Your task to perform on an android device: Go to Yahoo.com Image 0: 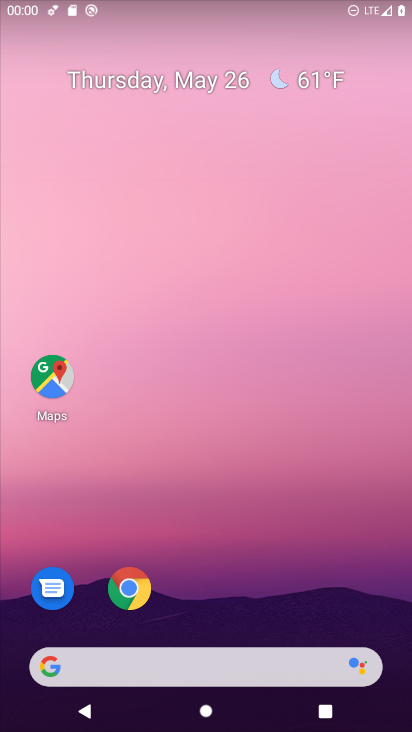
Step 0: click (131, 589)
Your task to perform on an android device: Go to Yahoo.com Image 1: 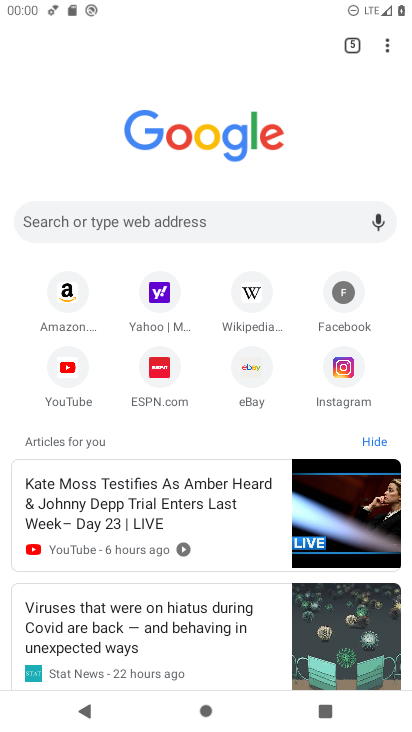
Step 1: click (168, 284)
Your task to perform on an android device: Go to Yahoo.com Image 2: 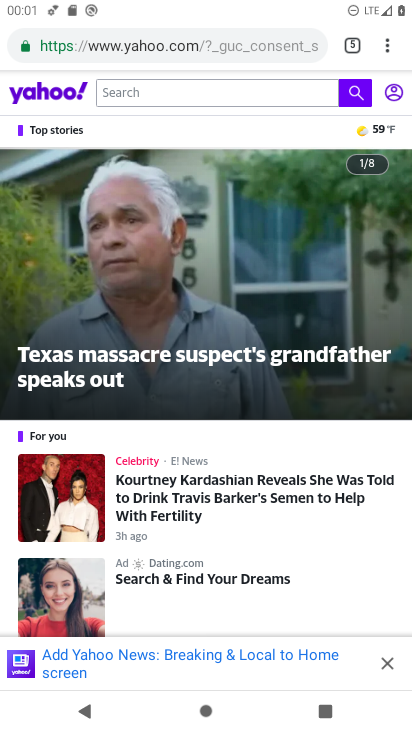
Step 2: task complete